Your task to perform on an android device: toggle sleep mode Image 0: 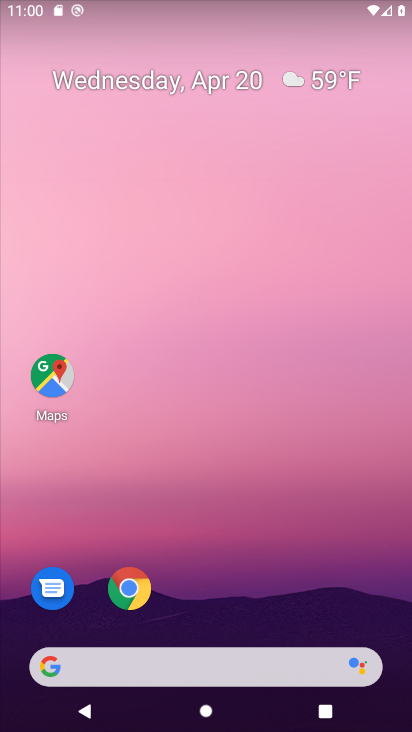
Step 0: drag from (387, 638) to (298, 194)
Your task to perform on an android device: toggle sleep mode Image 1: 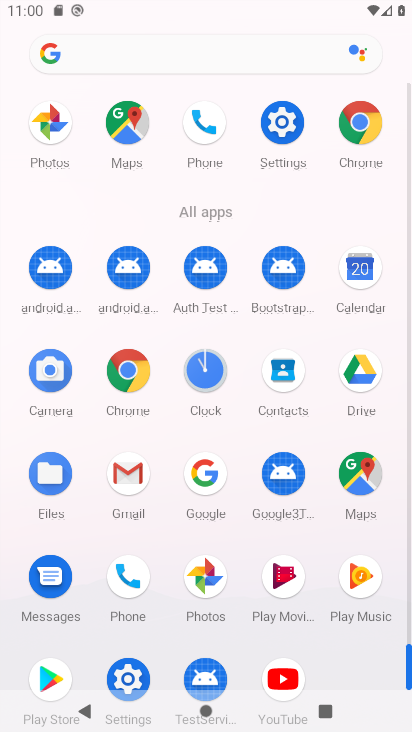
Step 1: click (129, 679)
Your task to perform on an android device: toggle sleep mode Image 2: 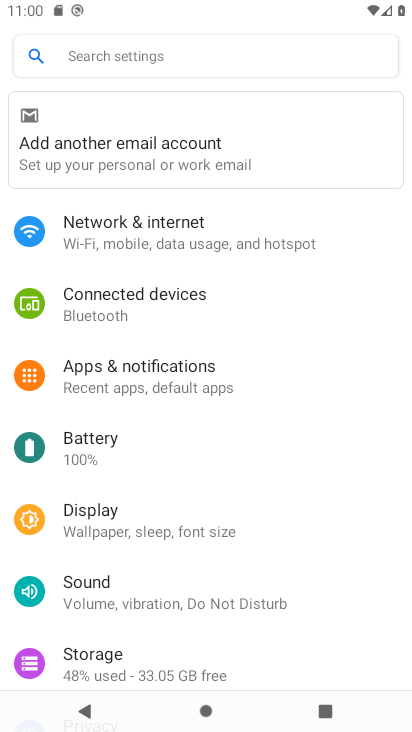
Step 2: click (124, 524)
Your task to perform on an android device: toggle sleep mode Image 3: 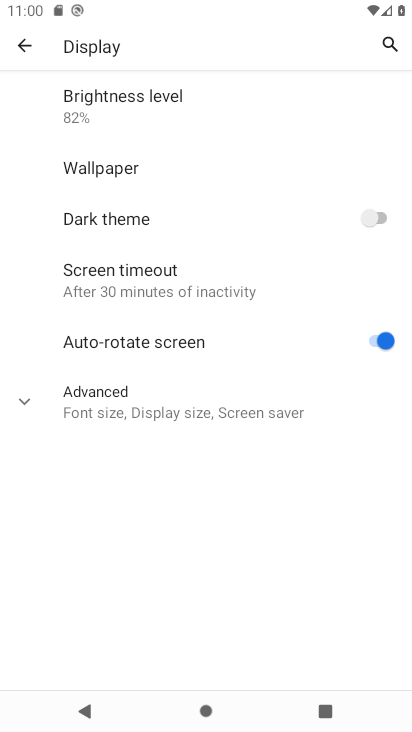
Step 3: click (33, 393)
Your task to perform on an android device: toggle sleep mode Image 4: 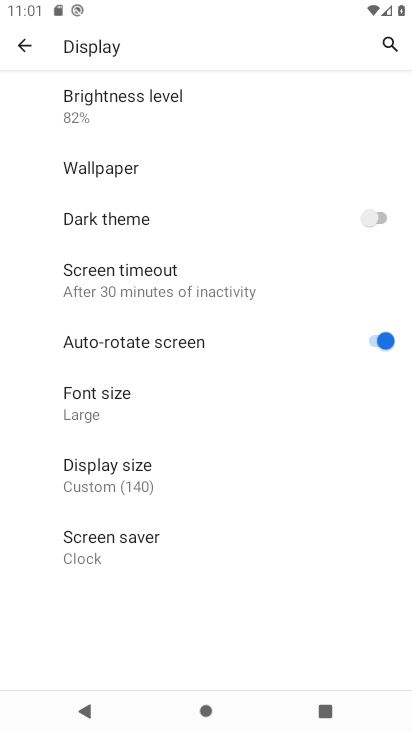
Step 4: task complete